Your task to perform on an android device: turn off data saver in the chrome app Image 0: 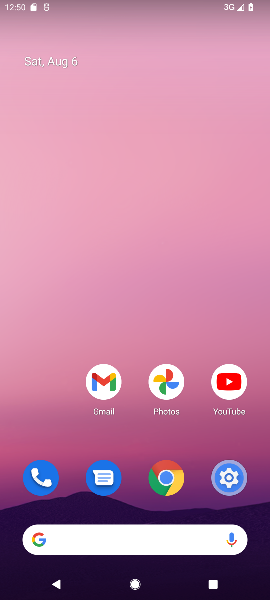
Step 0: click (161, 484)
Your task to perform on an android device: turn off data saver in the chrome app Image 1: 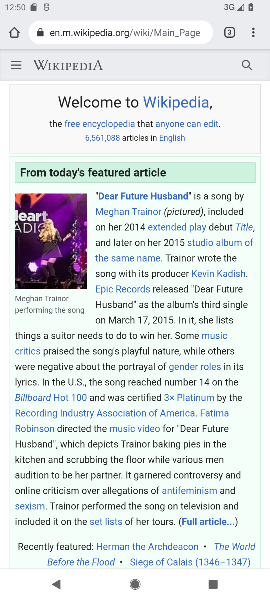
Step 1: click (257, 31)
Your task to perform on an android device: turn off data saver in the chrome app Image 2: 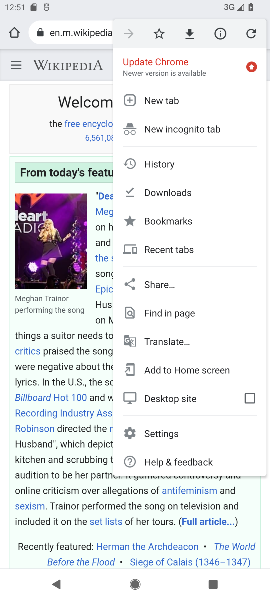
Step 2: click (160, 430)
Your task to perform on an android device: turn off data saver in the chrome app Image 3: 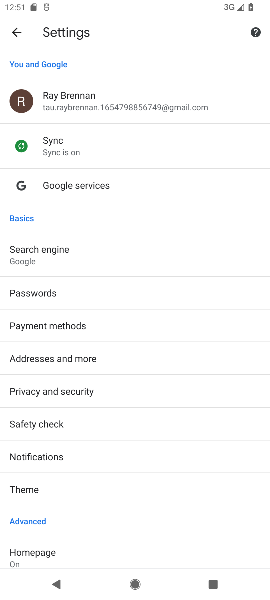
Step 3: drag from (60, 543) to (111, 325)
Your task to perform on an android device: turn off data saver in the chrome app Image 4: 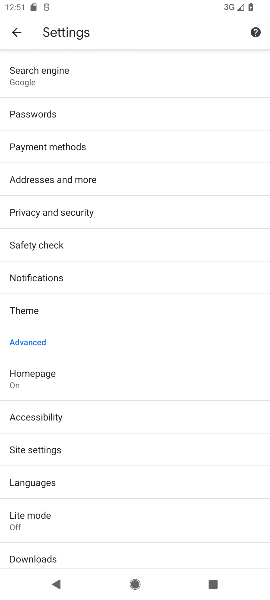
Step 4: click (35, 519)
Your task to perform on an android device: turn off data saver in the chrome app Image 5: 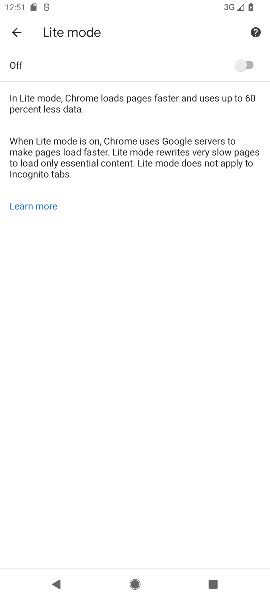
Step 5: task complete